Your task to perform on an android device: install app "Adobe Acrobat Reader: Edit PDF" Image 0: 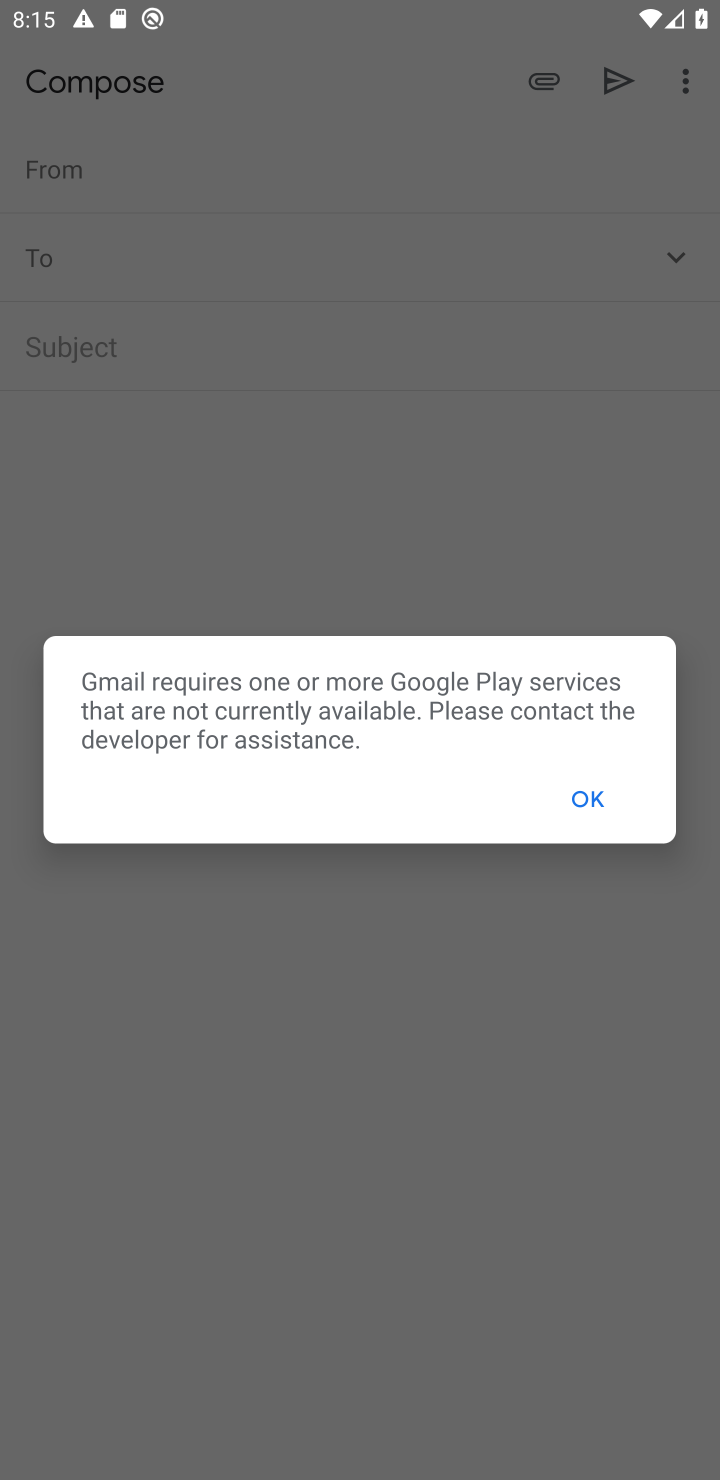
Step 0: press home button
Your task to perform on an android device: install app "Adobe Acrobat Reader: Edit PDF" Image 1: 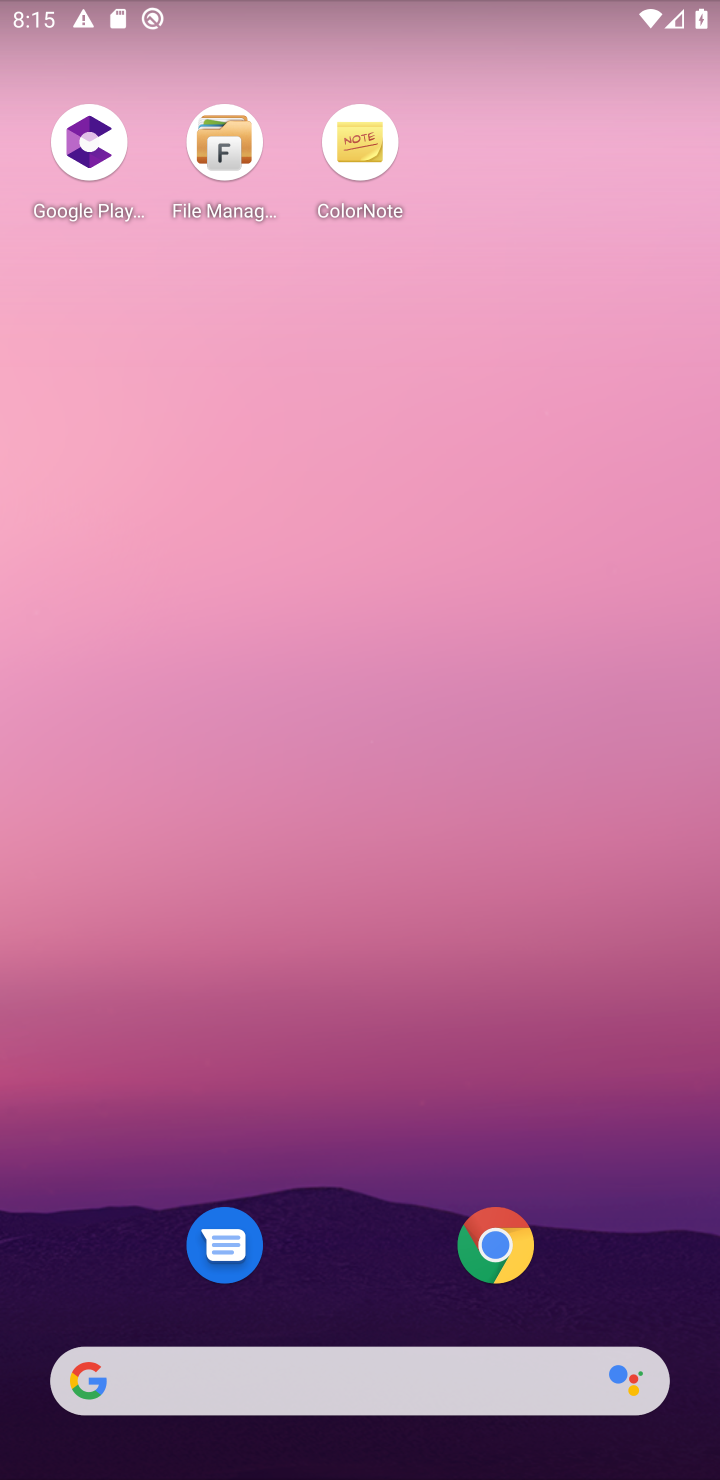
Step 1: drag from (182, 143) to (334, 47)
Your task to perform on an android device: install app "Adobe Acrobat Reader: Edit PDF" Image 2: 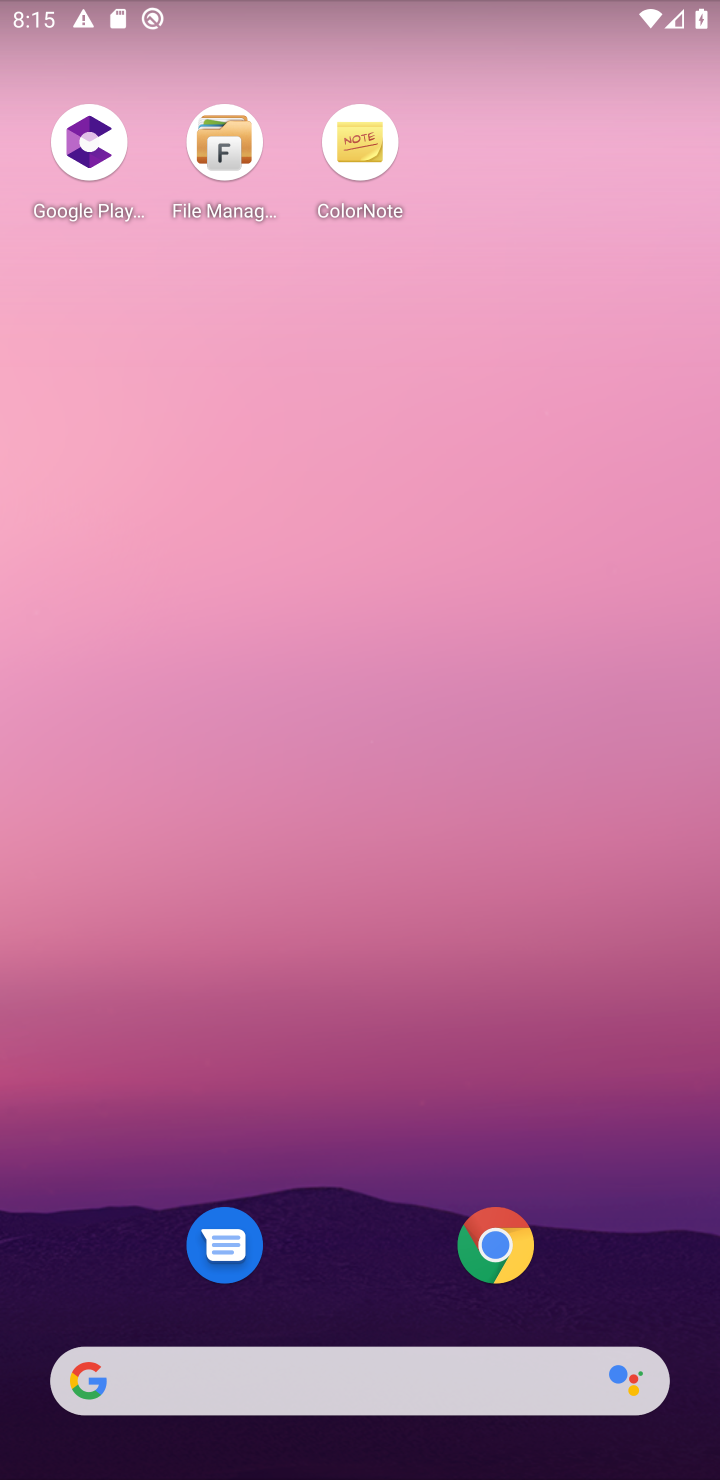
Step 2: drag from (370, 1214) to (606, 58)
Your task to perform on an android device: install app "Adobe Acrobat Reader: Edit PDF" Image 3: 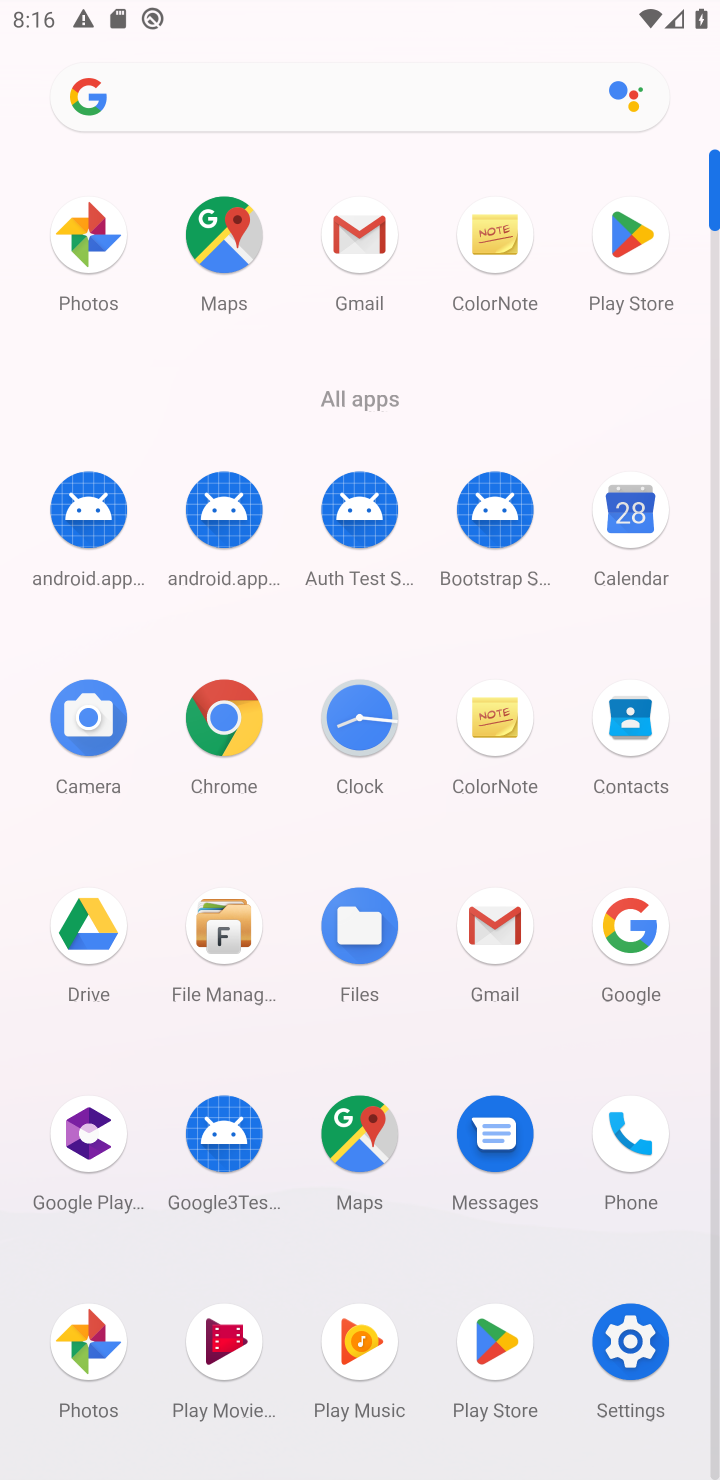
Step 3: click (623, 240)
Your task to perform on an android device: install app "Adobe Acrobat Reader: Edit PDF" Image 4: 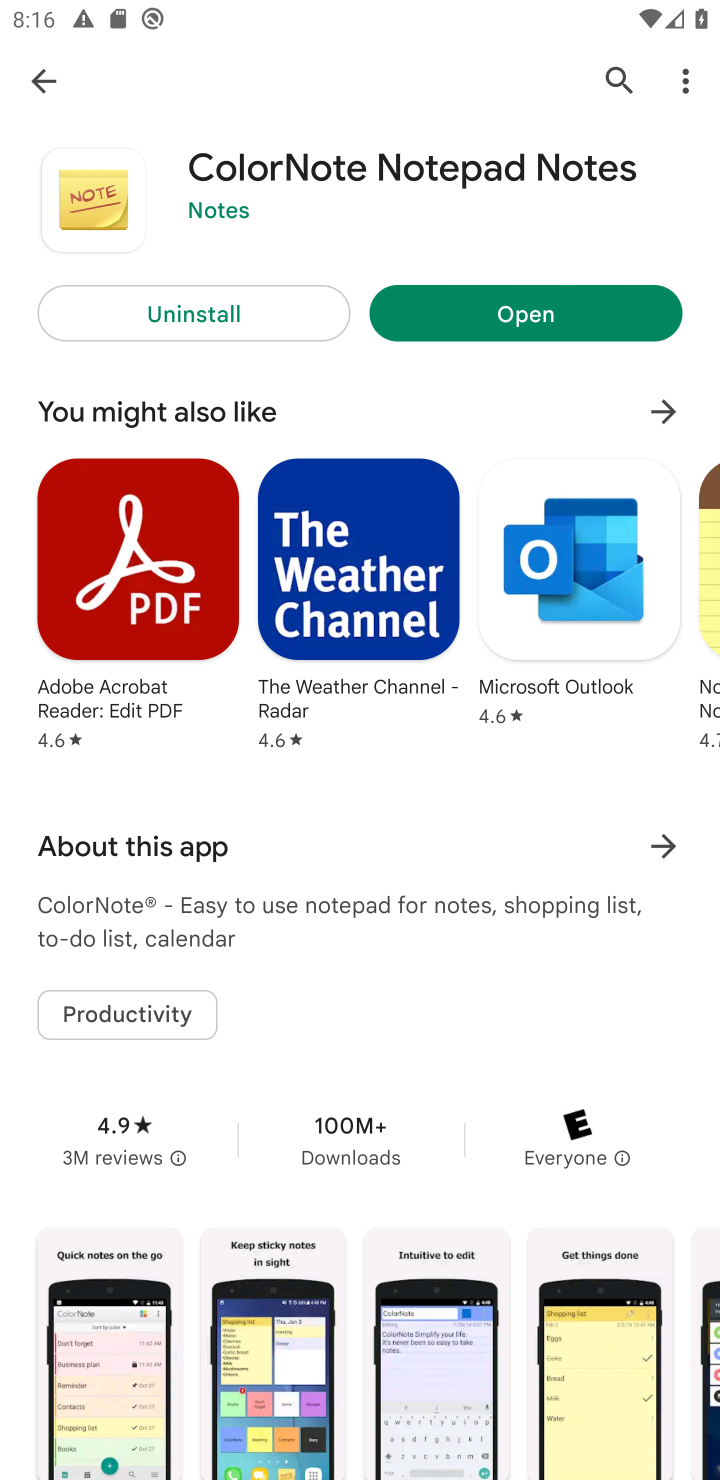
Step 4: click (609, 80)
Your task to perform on an android device: install app "Adobe Acrobat Reader: Edit PDF" Image 5: 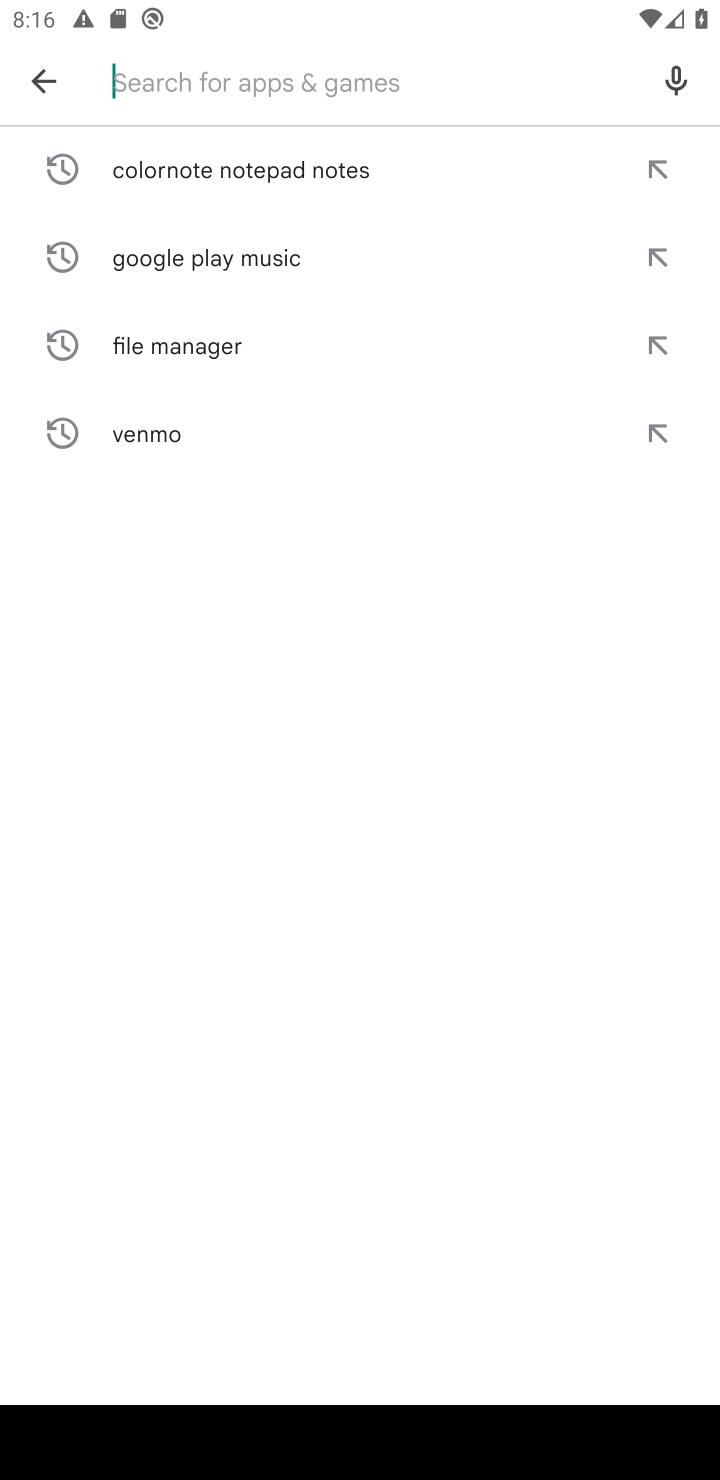
Step 5: type "Adobe Acrobat Reader: Edit PDF"
Your task to perform on an android device: install app "Adobe Acrobat Reader: Edit PDF" Image 6: 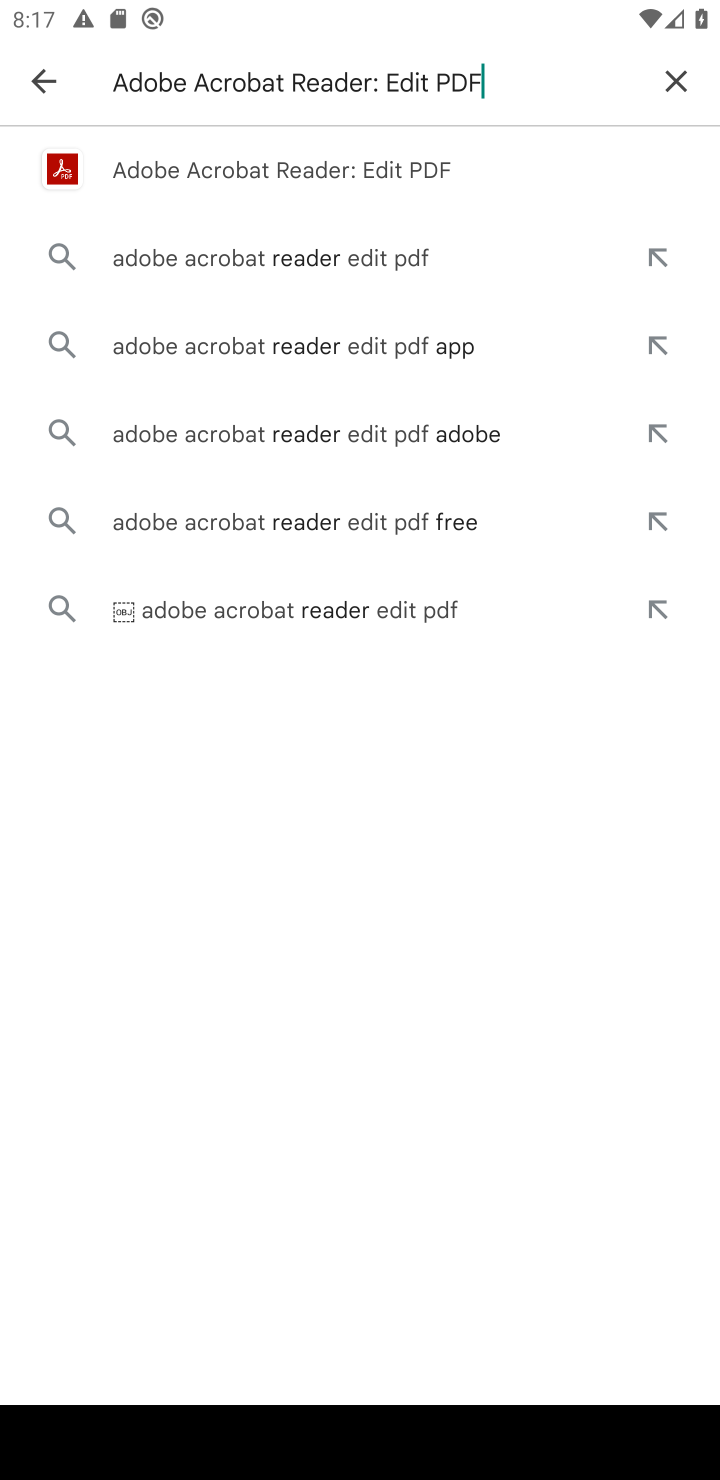
Step 6: click (266, 177)
Your task to perform on an android device: install app "Adobe Acrobat Reader: Edit PDF" Image 7: 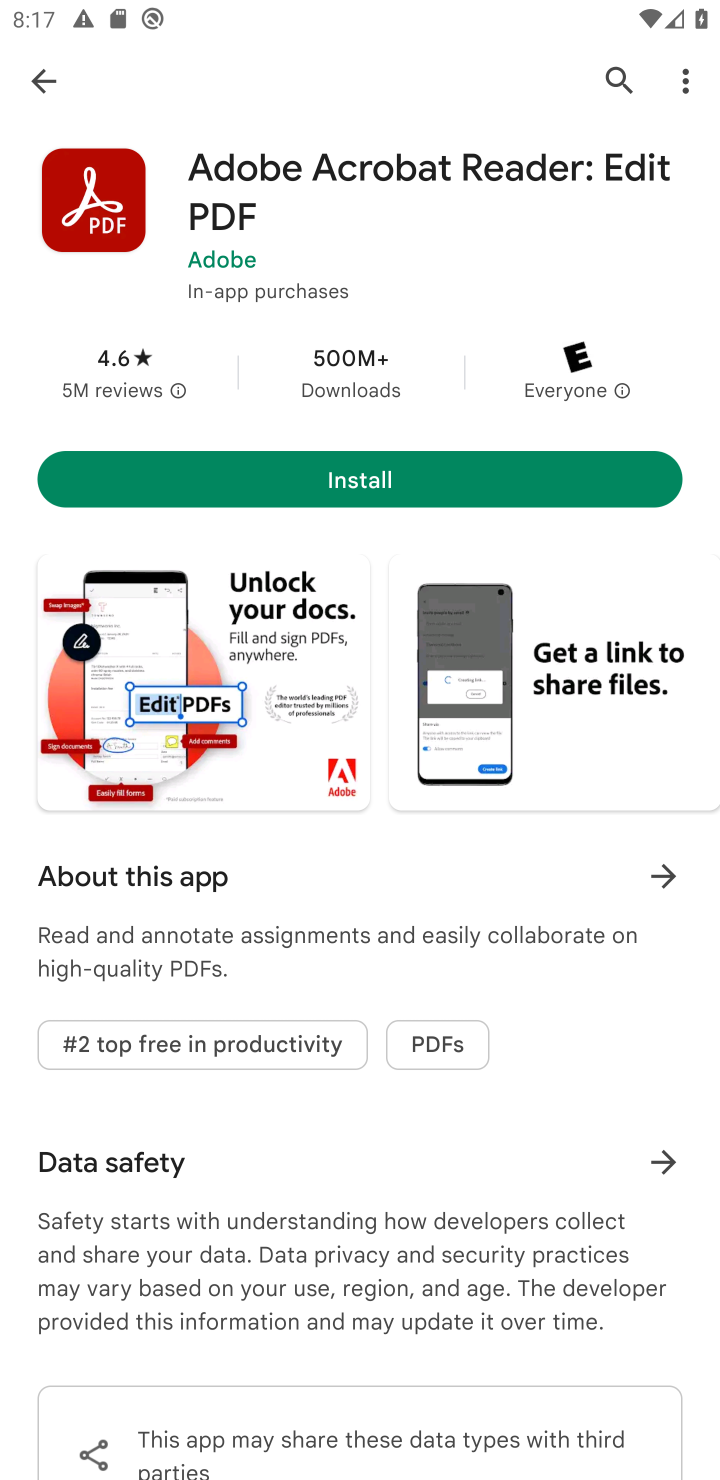
Step 7: click (129, 471)
Your task to perform on an android device: install app "Adobe Acrobat Reader: Edit PDF" Image 8: 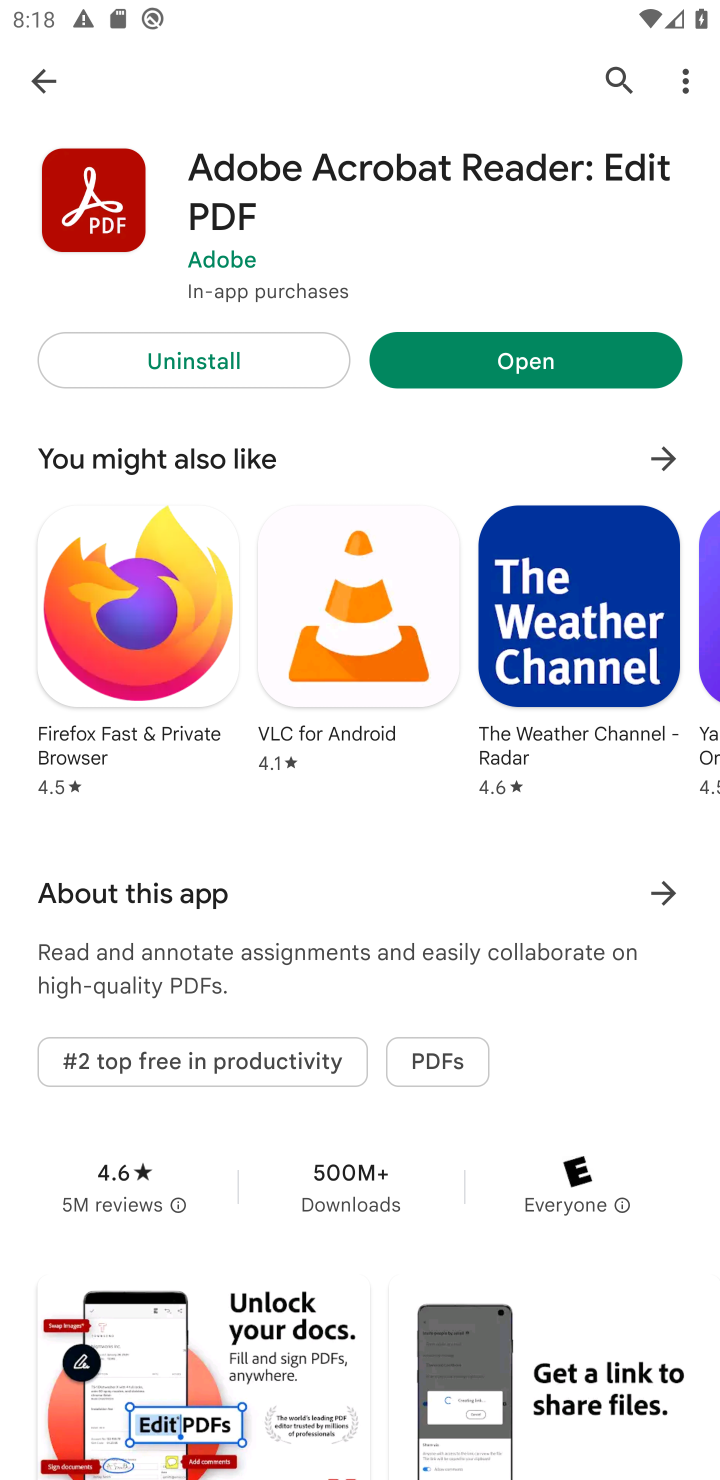
Step 8: task complete